Your task to perform on an android device: Search for Italian restaurants on Maps Image 0: 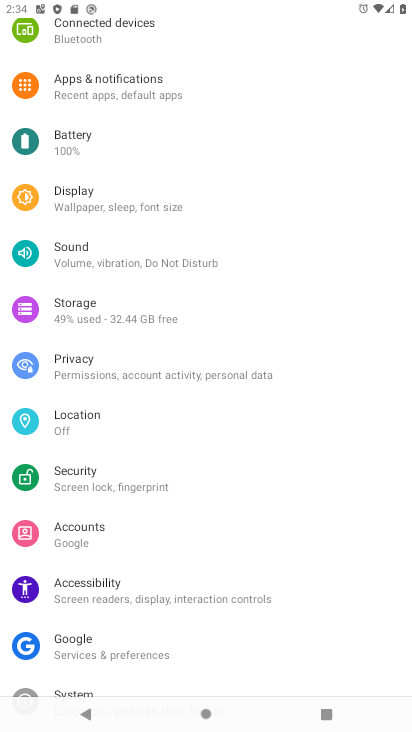
Step 0: press home button
Your task to perform on an android device: Search for Italian restaurants on Maps Image 1: 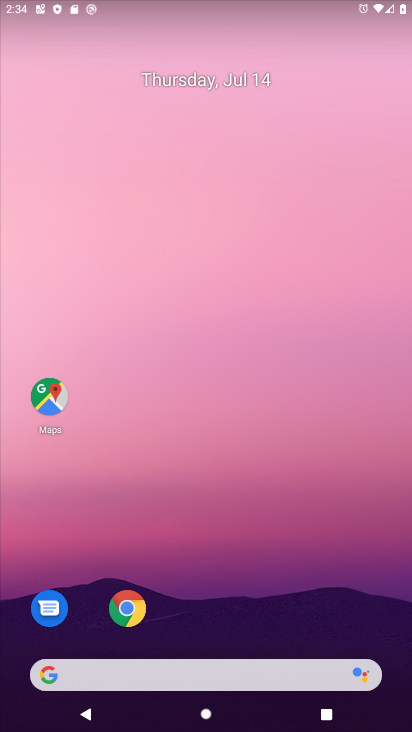
Step 1: drag from (236, 635) to (241, 323)
Your task to perform on an android device: Search for Italian restaurants on Maps Image 2: 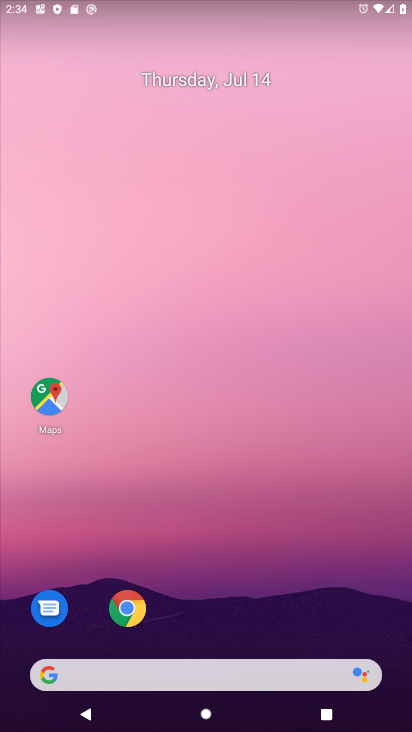
Step 2: drag from (221, 655) to (209, 215)
Your task to perform on an android device: Search for Italian restaurants on Maps Image 3: 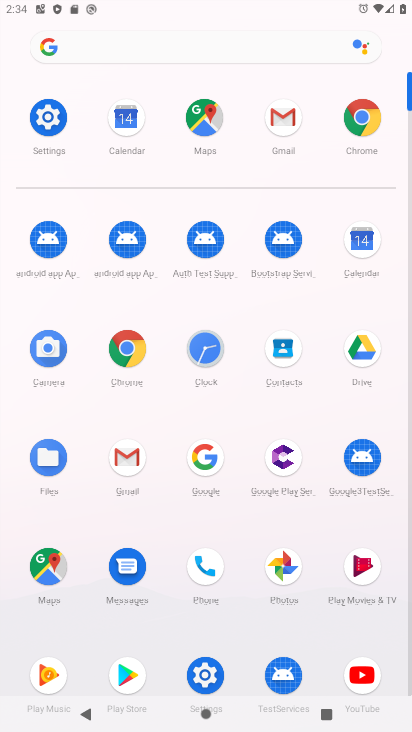
Step 3: click (55, 574)
Your task to perform on an android device: Search for Italian restaurants on Maps Image 4: 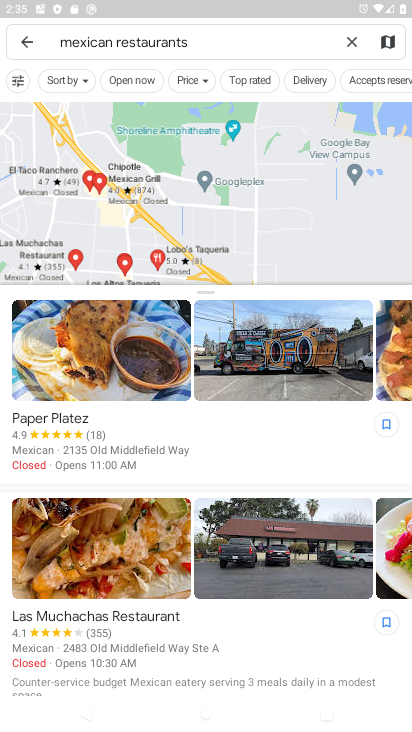
Step 4: click (353, 41)
Your task to perform on an android device: Search for Italian restaurants on Maps Image 5: 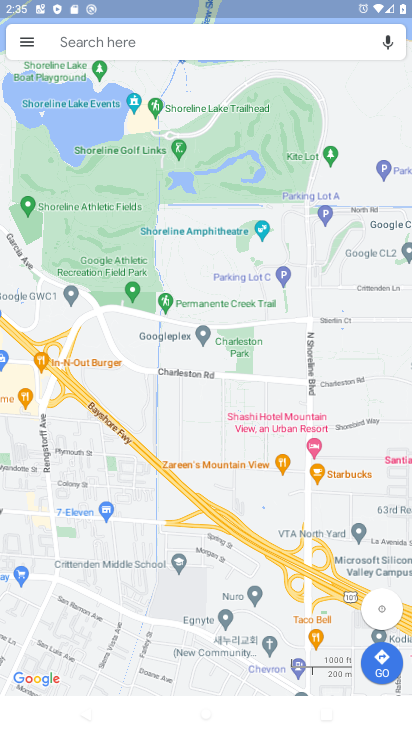
Step 5: click (231, 41)
Your task to perform on an android device: Search for Italian restaurants on Maps Image 6: 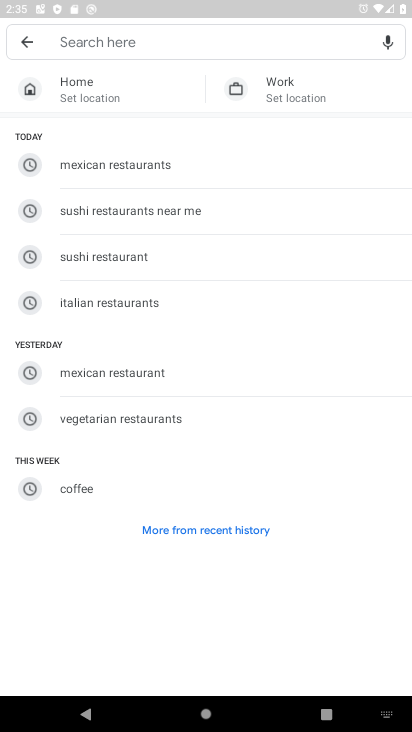
Step 6: type "italian restaurants"
Your task to perform on an android device: Search for Italian restaurants on Maps Image 7: 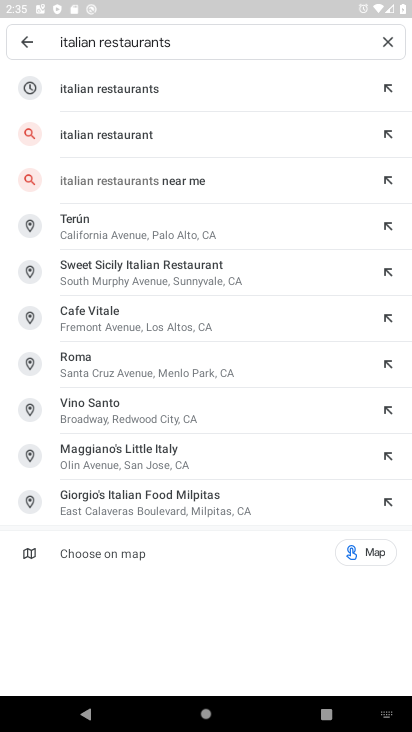
Step 7: click (133, 87)
Your task to perform on an android device: Search for Italian restaurants on Maps Image 8: 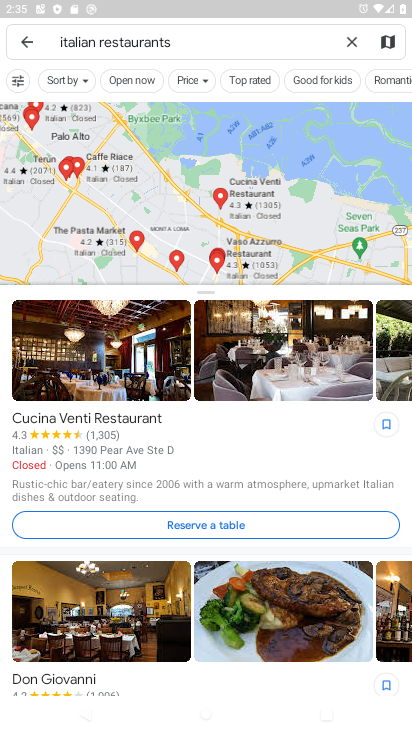
Step 8: task complete